Your task to perform on an android device: Search for 8K TVs on Best Buy. Image 0: 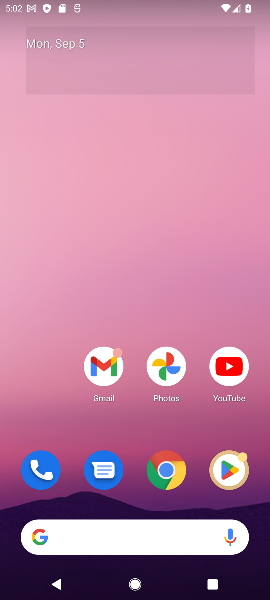
Step 0: click (107, 538)
Your task to perform on an android device: Search for 8K TVs on Best Buy. Image 1: 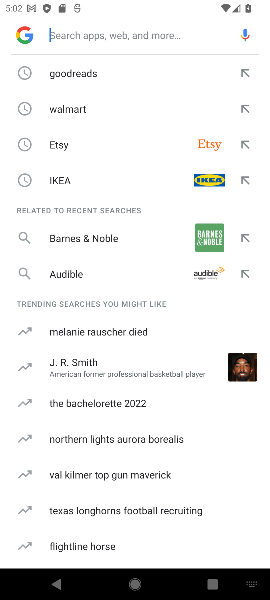
Step 1: type "best buy"
Your task to perform on an android device: Search for 8K TVs on Best Buy. Image 2: 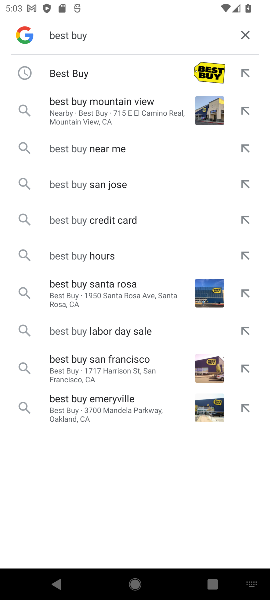
Step 2: click (99, 74)
Your task to perform on an android device: Search for 8K TVs on Best Buy. Image 3: 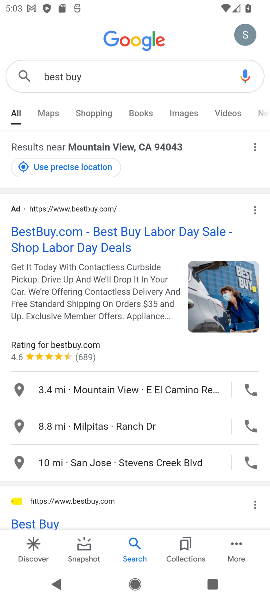
Step 3: drag from (109, 336) to (108, 245)
Your task to perform on an android device: Search for 8K TVs on Best Buy. Image 4: 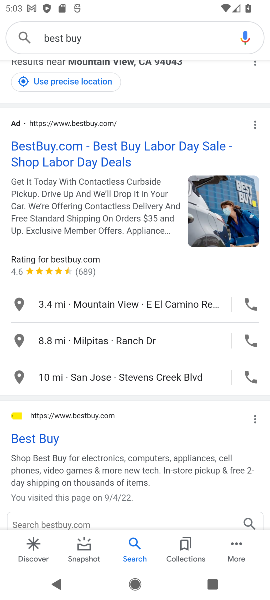
Step 4: click (56, 421)
Your task to perform on an android device: Search for 8K TVs on Best Buy. Image 5: 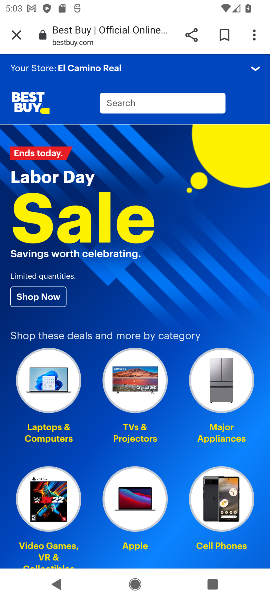
Step 5: click (132, 106)
Your task to perform on an android device: Search for 8K TVs on Best Buy. Image 6: 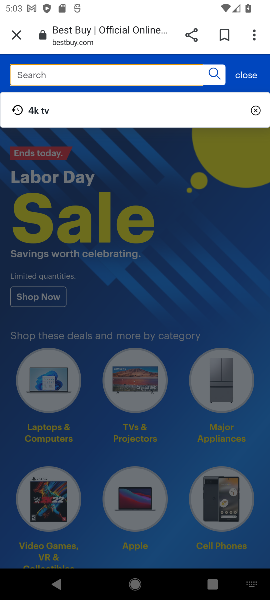
Step 6: type "8k tv"
Your task to perform on an android device: Search for 8K TVs on Best Buy. Image 7: 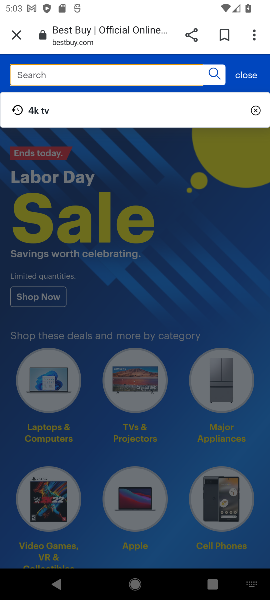
Step 7: type ""
Your task to perform on an android device: Search for 8K TVs on Best Buy. Image 8: 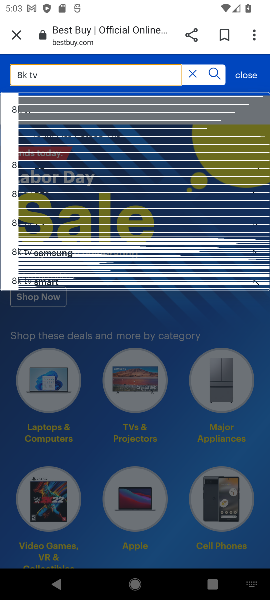
Step 8: press enter
Your task to perform on an android device: Search for 8K TVs on Best Buy. Image 9: 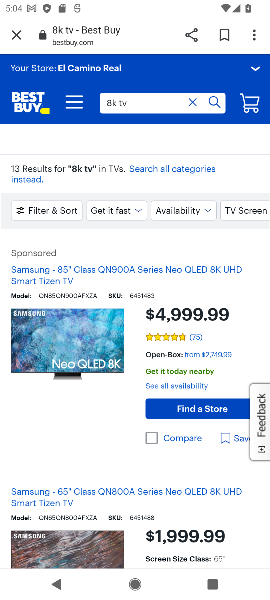
Step 9: drag from (218, 194) to (220, 149)
Your task to perform on an android device: Search for 8K TVs on Best Buy. Image 10: 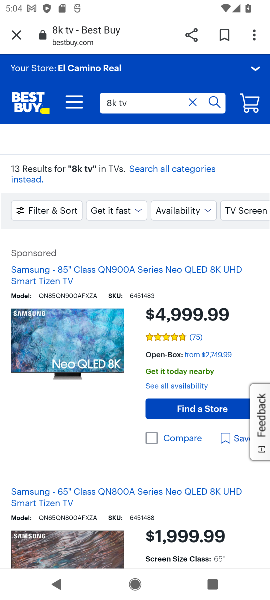
Step 10: drag from (244, 235) to (252, 197)
Your task to perform on an android device: Search for 8K TVs on Best Buy. Image 11: 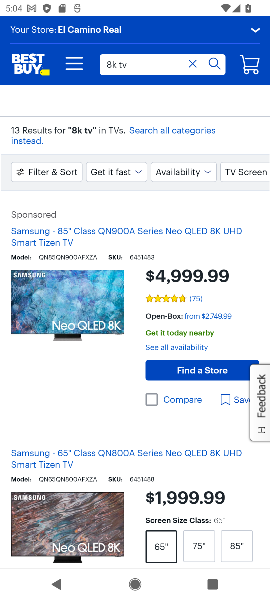
Step 11: click (185, 433)
Your task to perform on an android device: Search for 8K TVs on Best Buy. Image 12: 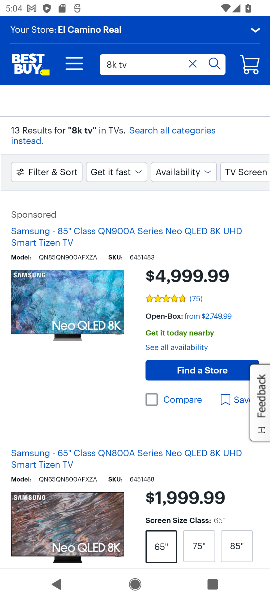
Step 12: task complete